Your task to perform on an android device: remove spam from my inbox in the gmail app Image 0: 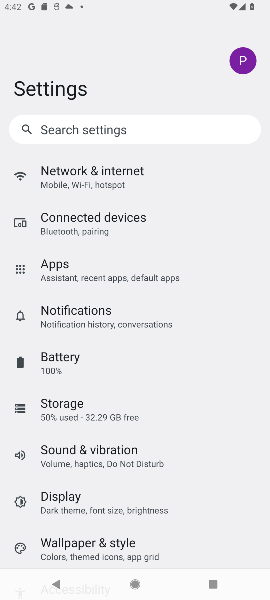
Step 0: press back button
Your task to perform on an android device: remove spam from my inbox in the gmail app Image 1: 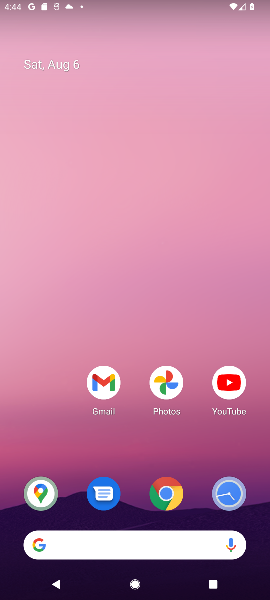
Step 1: drag from (168, 159) to (160, 112)
Your task to perform on an android device: remove spam from my inbox in the gmail app Image 2: 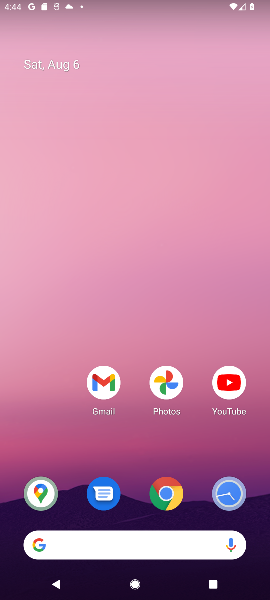
Step 2: drag from (207, 416) to (170, 150)
Your task to perform on an android device: remove spam from my inbox in the gmail app Image 3: 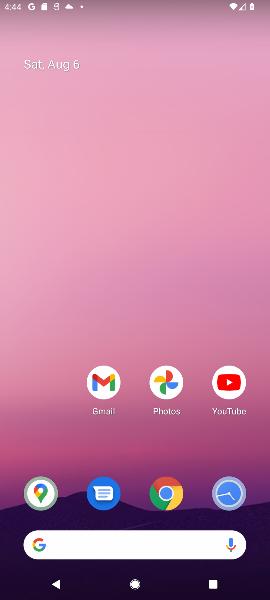
Step 3: drag from (165, 437) to (106, 75)
Your task to perform on an android device: remove spam from my inbox in the gmail app Image 4: 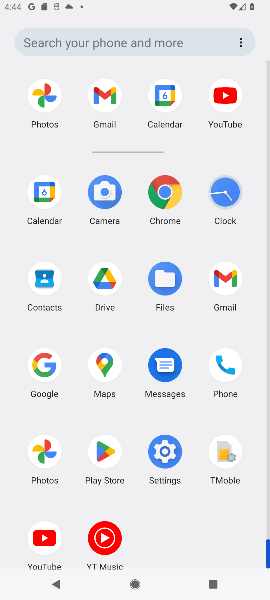
Step 4: drag from (100, 379) to (93, 20)
Your task to perform on an android device: remove spam from my inbox in the gmail app Image 5: 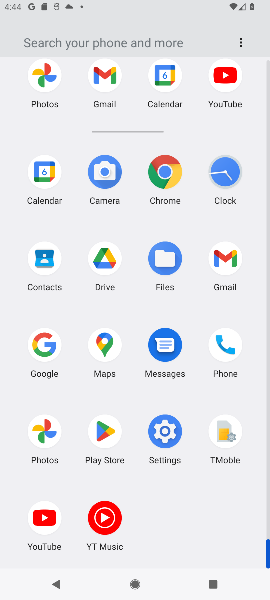
Step 5: click (224, 263)
Your task to perform on an android device: remove spam from my inbox in the gmail app Image 6: 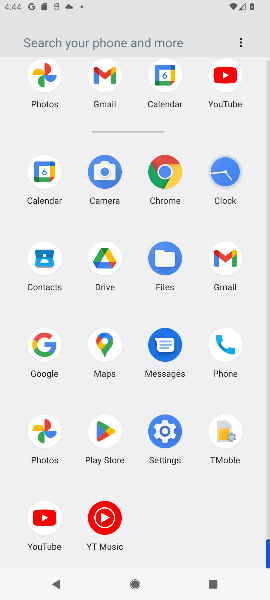
Step 6: click (224, 264)
Your task to perform on an android device: remove spam from my inbox in the gmail app Image 7: 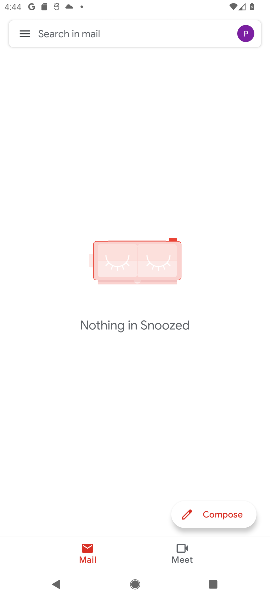
Step 7: click (224, 264)
Your task to perform on an android device: remove spam from my inbox in the gmail app Image 8: 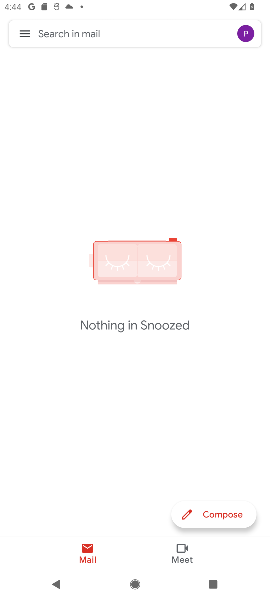
Step 8: click (224, 264)
Your task to perform on an android device: remove spam from my inbox in the gmail app Image 9: 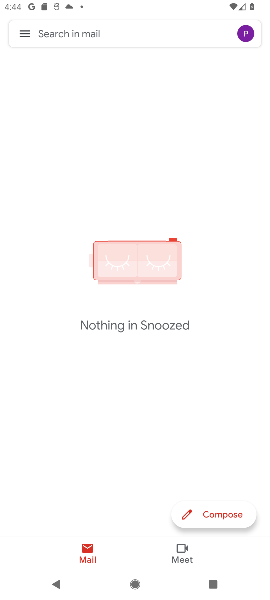
Step 9: click (224, 264)
Your task to perform on an android device: remove spam from my inbox in the gmail app Image 10: 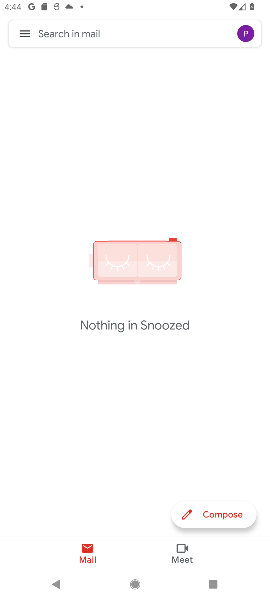
Step 10: click (23, 33)
Your task to perform on an android device: remove spam from my inbox in the gmail app Image 11: 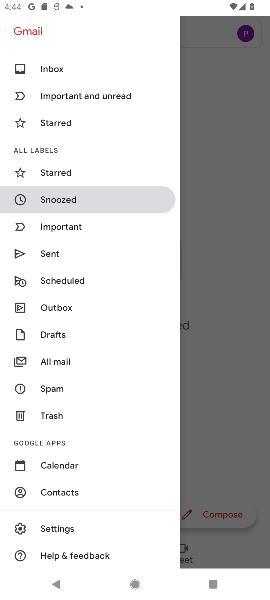
Step 11: click (57, 392)
Your task to perform on an android device: remove spam from my inbox in the gmail app Image 12: 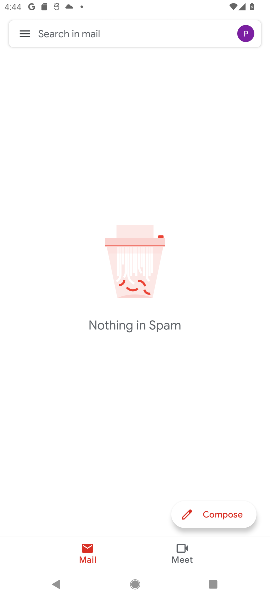
Step 12: task complete